Your task to perform on an android device: turn on sleep mode Image 0: 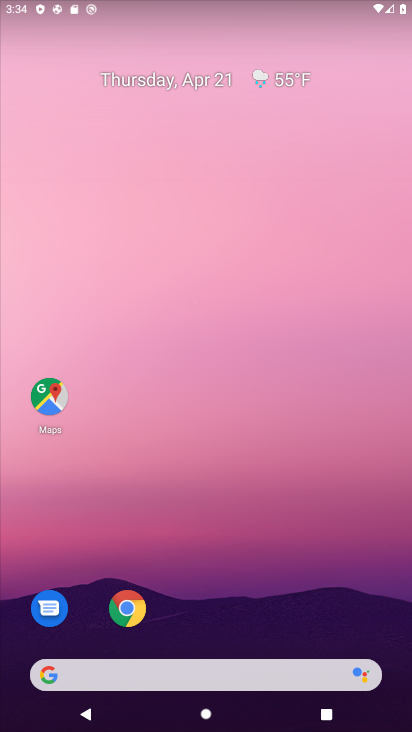
Step 0: drag from (237, 558) to (233, 274)
Your task to perform on an android device: turn on sleep mode Image 1: 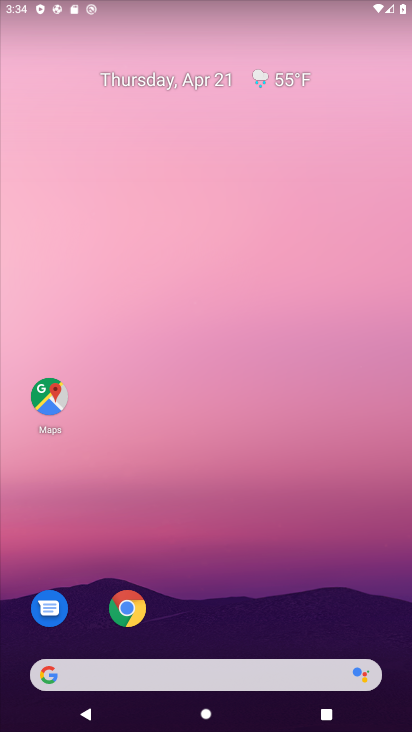
Step 1: drag from (240, 485) to (240, 233)
Your task to perform on an android device: turn on sleep mode Image 2: 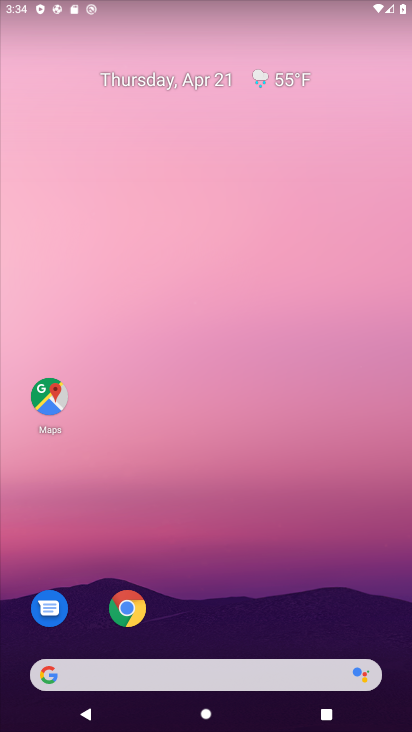
Step 2: drag from (231, 498) to (303, 2)
Your task to perform on an android device: turn on sleep mode Image 3: 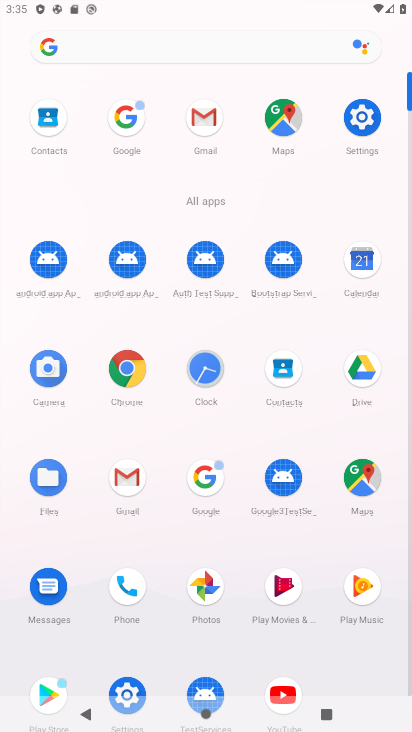
Step 3: click (351, 139)
Your task to perform on an android device: turn on sleep mode Image 4: 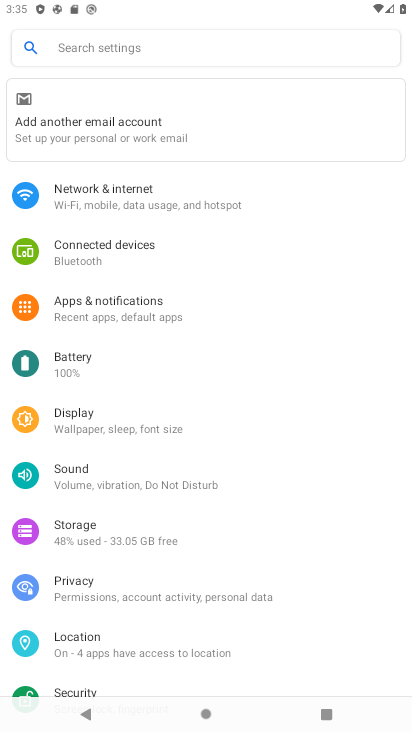
Step 4: click (177, 429)
Your task to perform on an android device: turn on sleep mode Image 5: 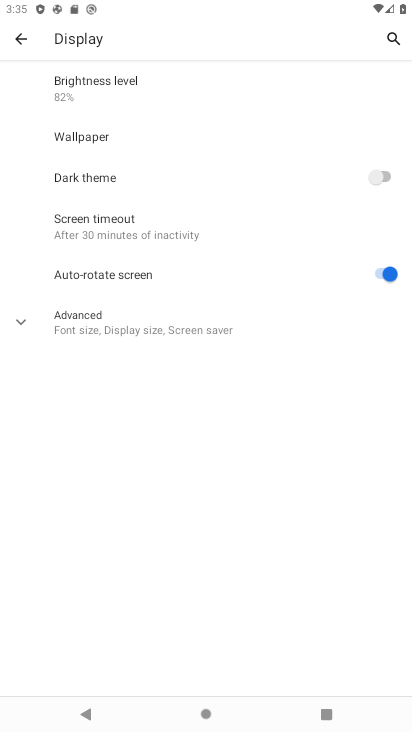
Step 5: click (129, 315)
Your task to perform on an android device: turn on sleep mode Image 6: 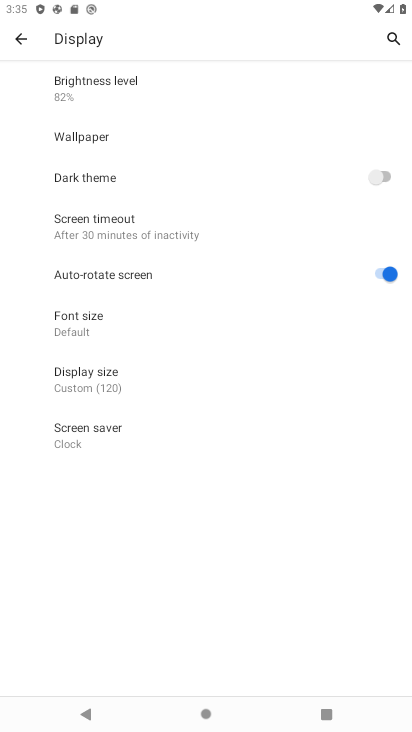
Step 6: task complete